Your task to perform on an android device: Go to eBay Image 0: 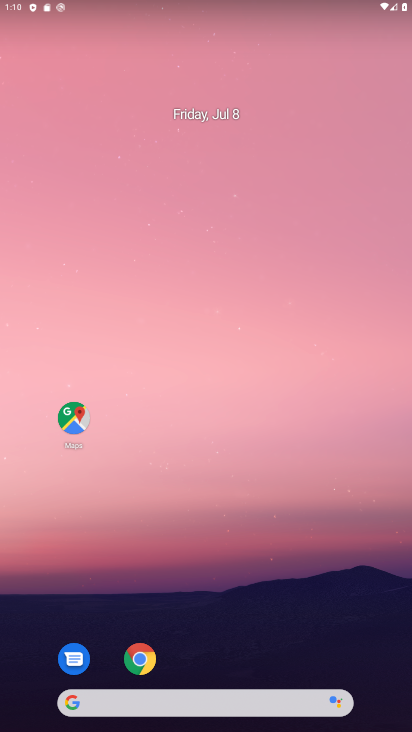
Step 0: click (140, 655)
Your task to perform on an android device: Go to eBay Image 1: 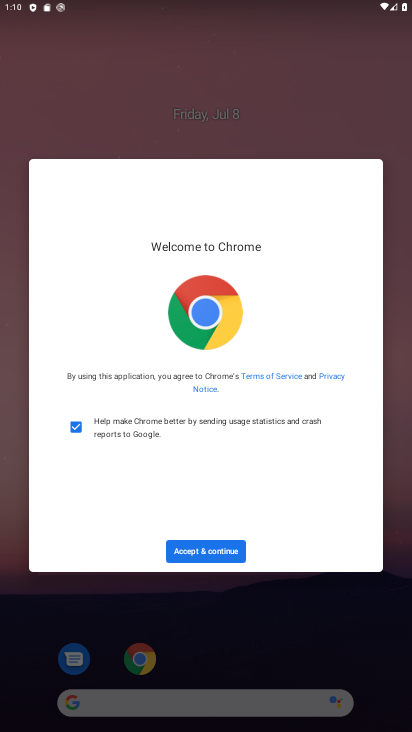
Step 1: click (206, 549)
Your task to perform on an android device: Go to eBay Image 2: 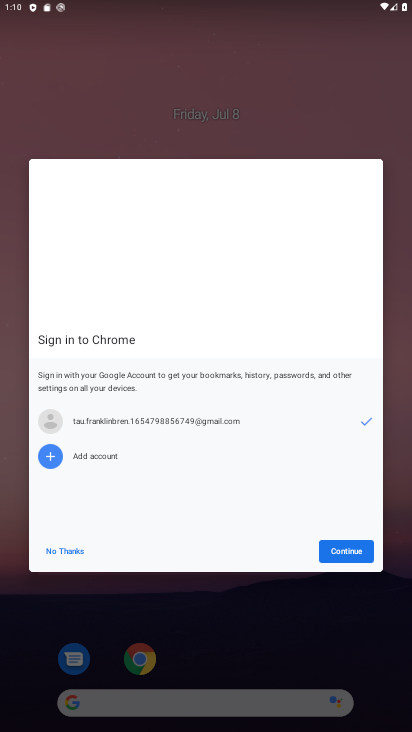
Step 2: click (339, 552)
Your task to perform on an android device: Go to eBay Image 3: 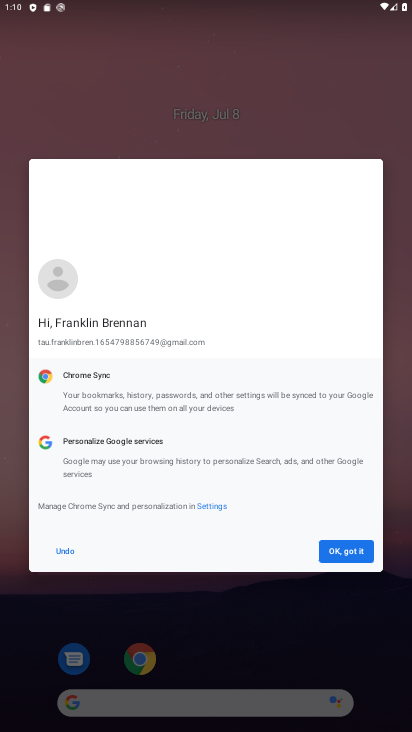
Step 3: click (339, 558)
Your task to perform on an android device: Go to eBay Image 4: 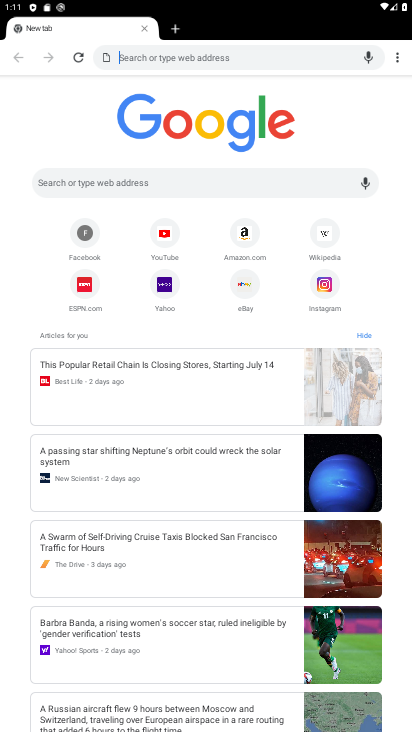
Step 4: click (241, 281)
Your task to perform on an android device: Go to eBay Image 5: 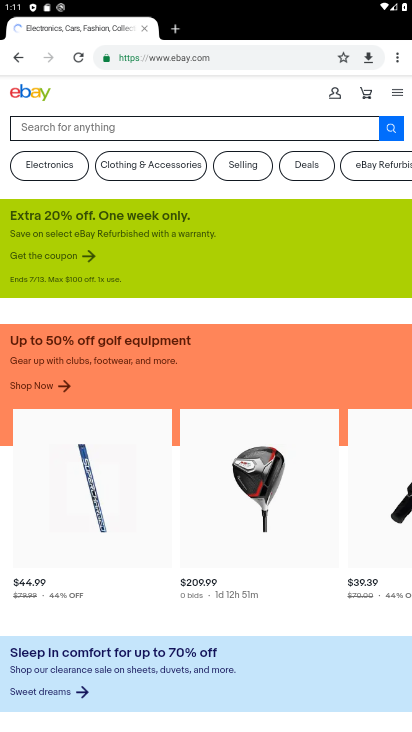
Step 5: task complete